Your task to perform on an android device: find snoozed emails in the gmail app Image 0: 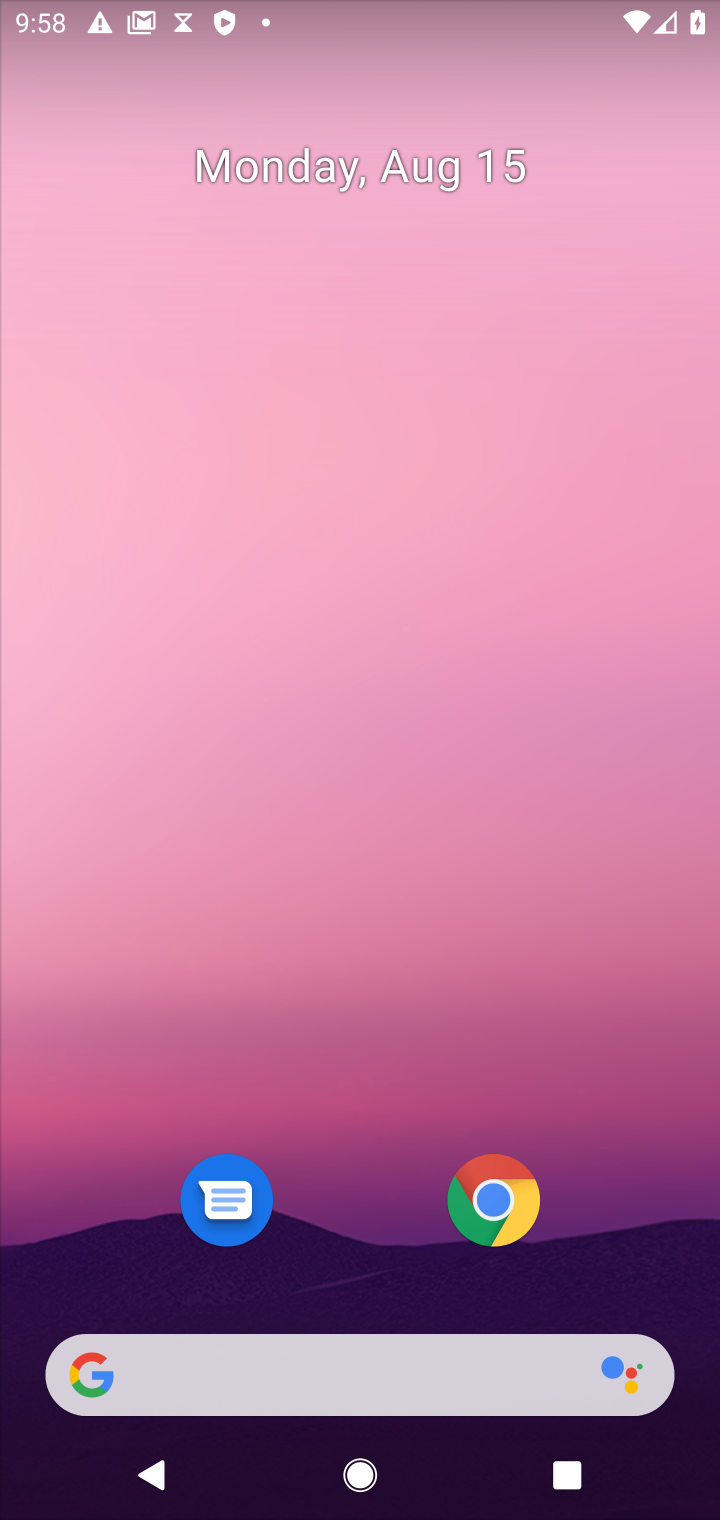
Step 0: drag from (374, 1080) to (374, 318)
Your task to perform on an android device: find snoozed emails in the gmail app Image 1: 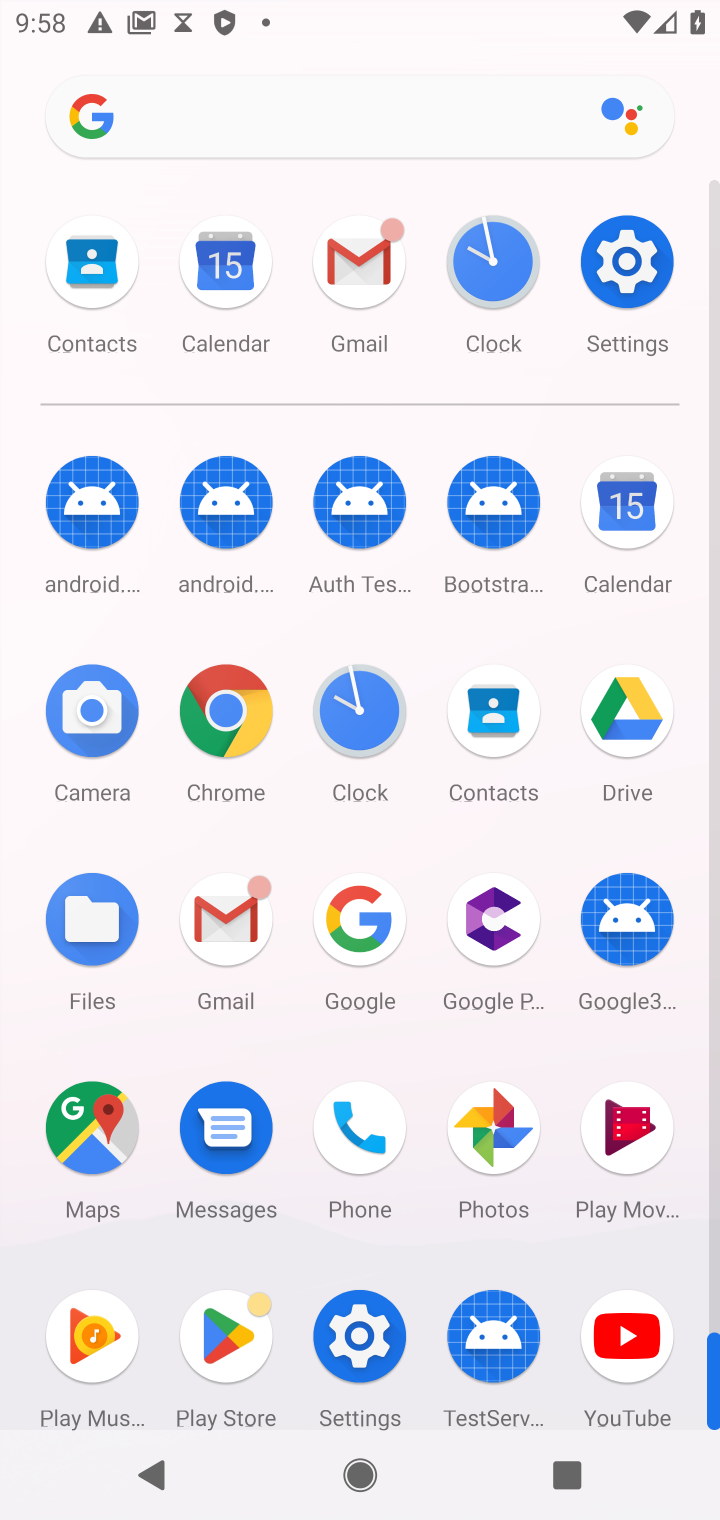
Step 1: click (375, 285)
Your task to perform on an android device: find snoozed emails in the gmail app Image 2: 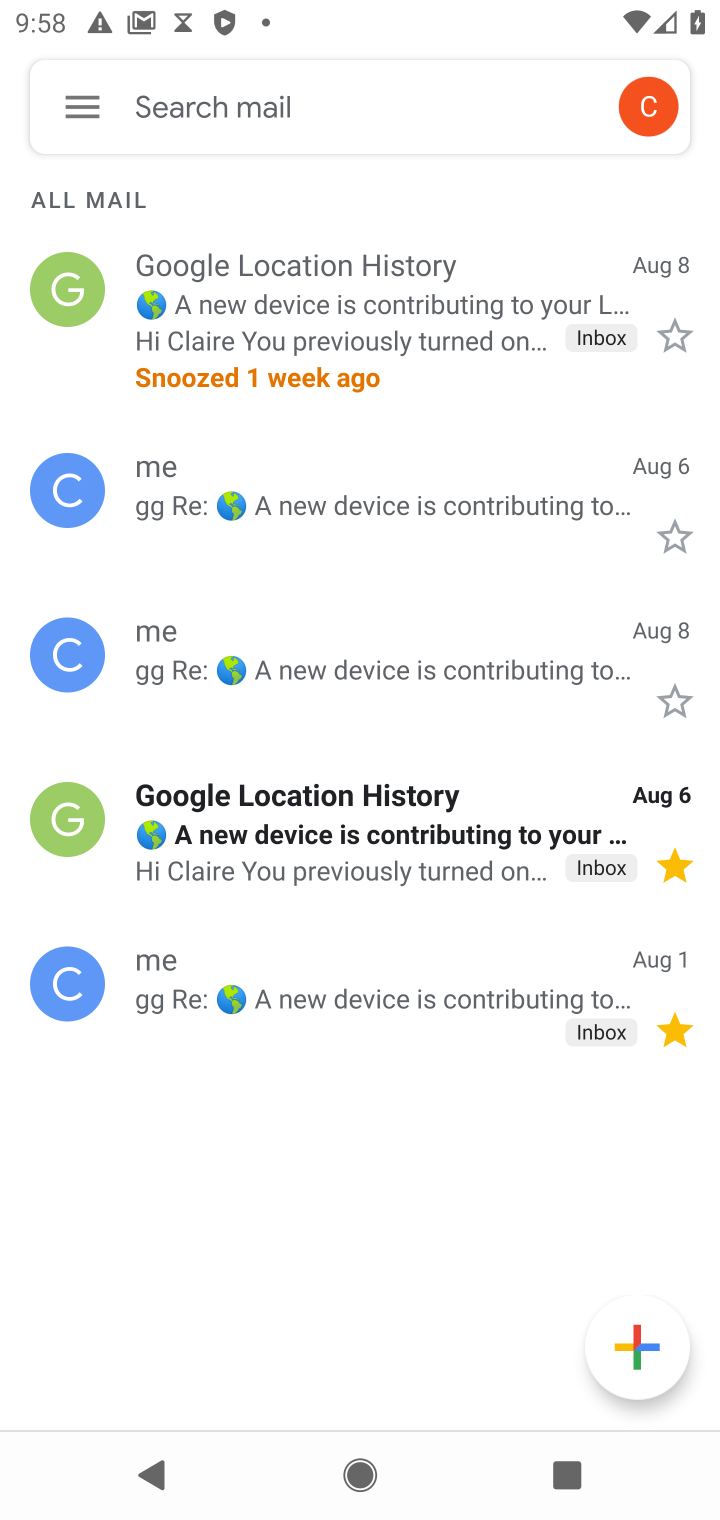
Step 2: click (101, 98)
Your task to perform on an android device: find snoozed emails in the gmail app Image 3: 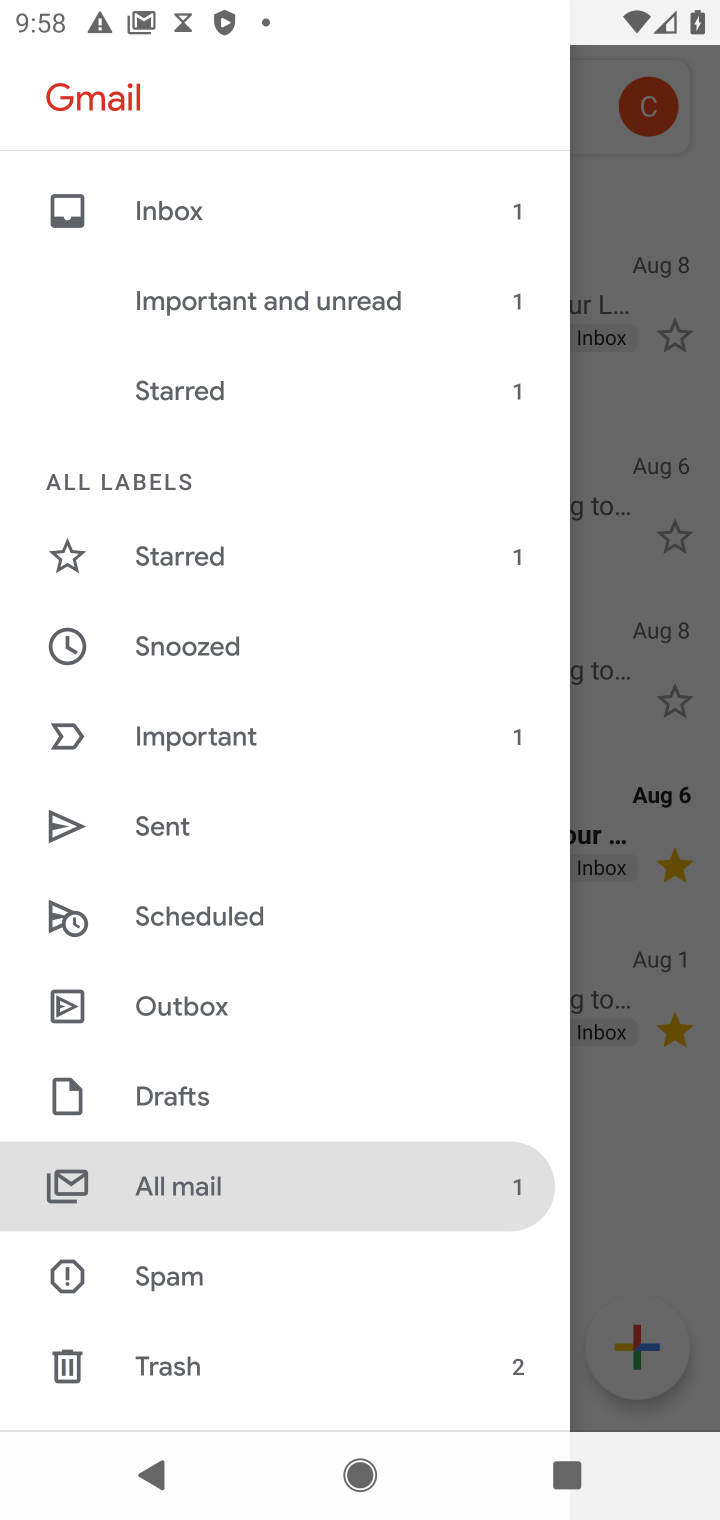
Step 3: click (222, 653)
Your task to perform on an android device: find snoozed emails in the gmail app Image 4: 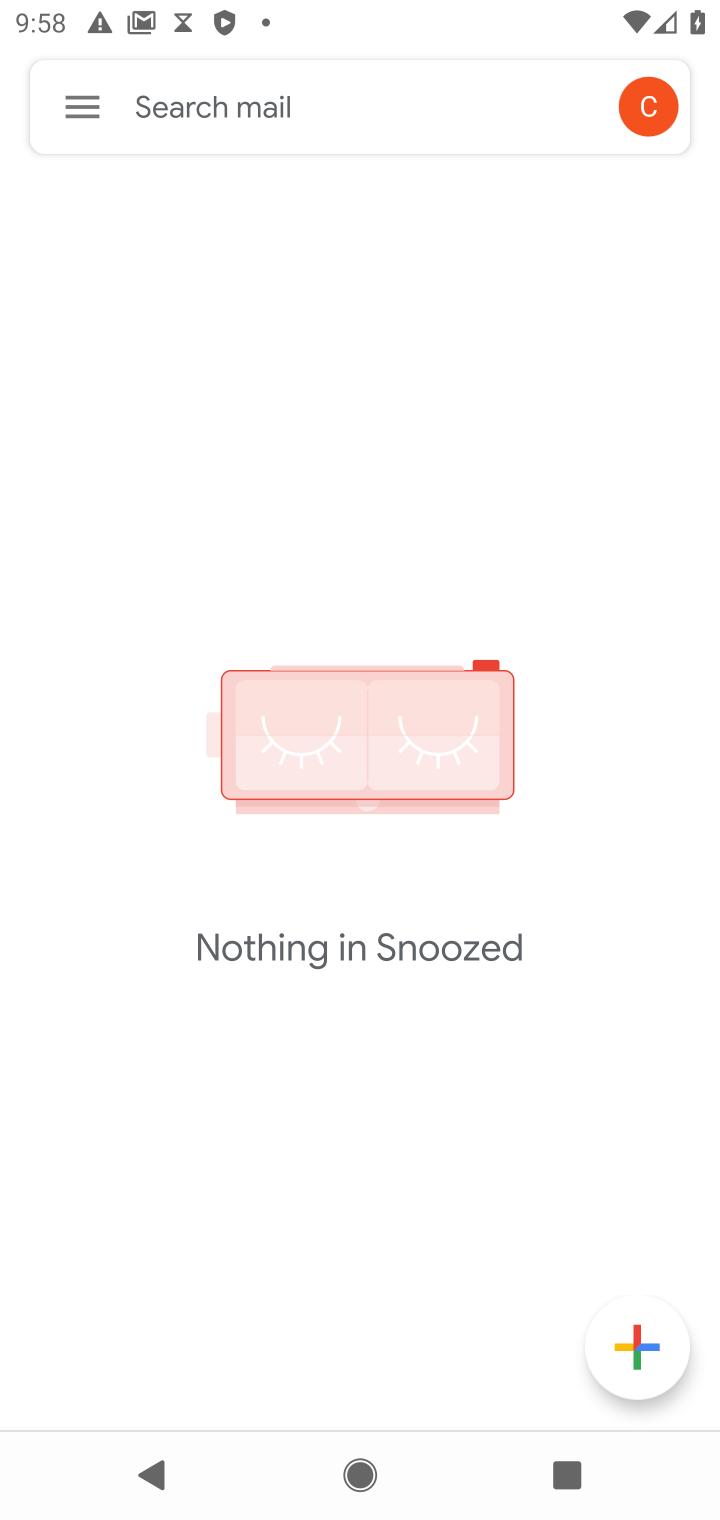
Step 4: task complete